Your task to perform on an android device: make emails show in primary in the gmail app Image 0: 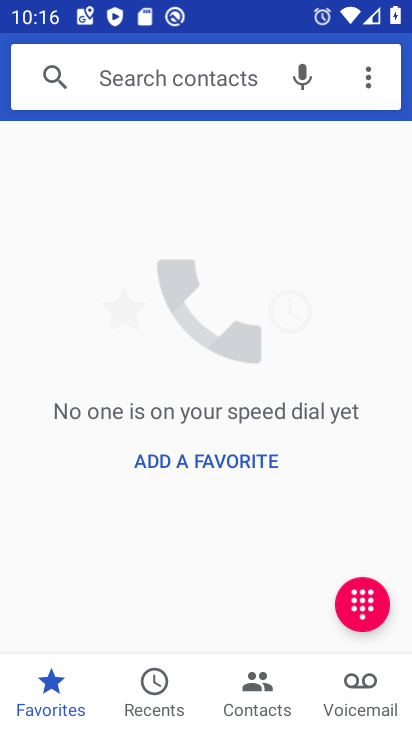
Step 0: press home button
Your task to perform on an android device: make emails show in primary in the gmail app Image 1: 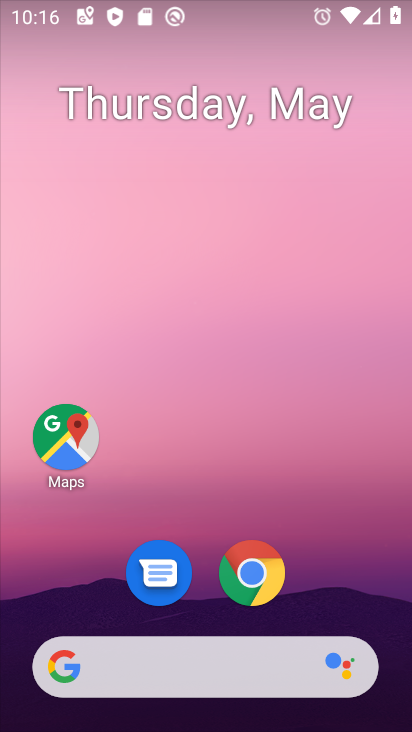
Step 1: drag from (198, 613) to (214, 187)
Your task to perform on an android device: make emails show in primary in the gmail app Image 2: 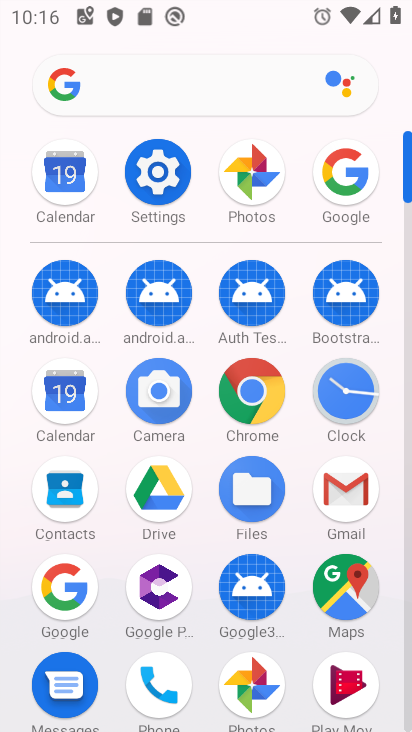
Step 2: click (326, 503)
Your task to perform on an android device: make emails show in primary in the gmail app Image 3: 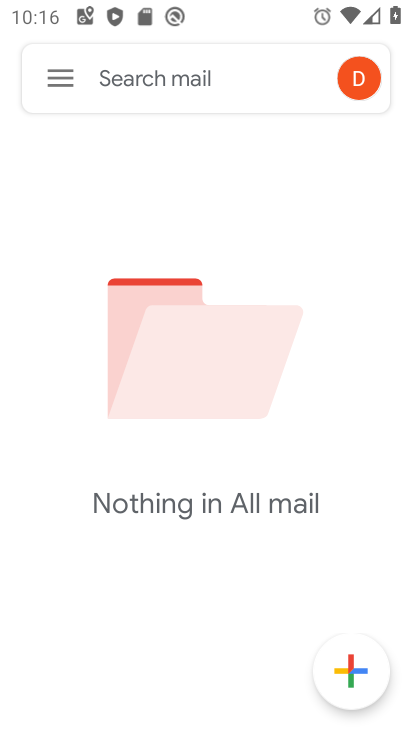
Step 3: click (53, 83)
Your task to perform on an android device: make emails show in primary in the gmail app Image 4: 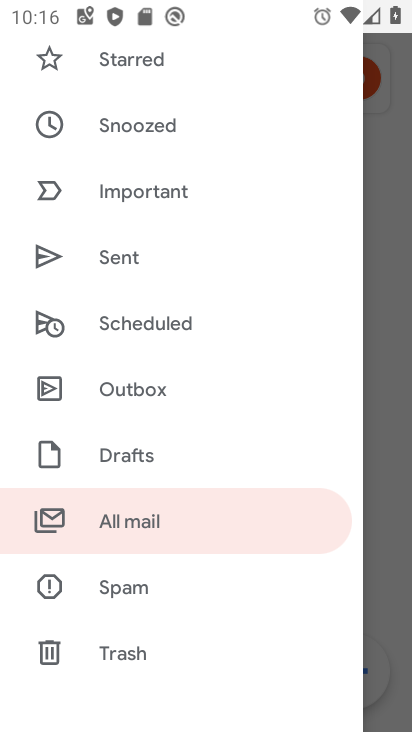
Step 4: drag from (188, 146) to (200, 512)
Your task to perform on an android device: make emails show in primary in the gmail app Image 5: 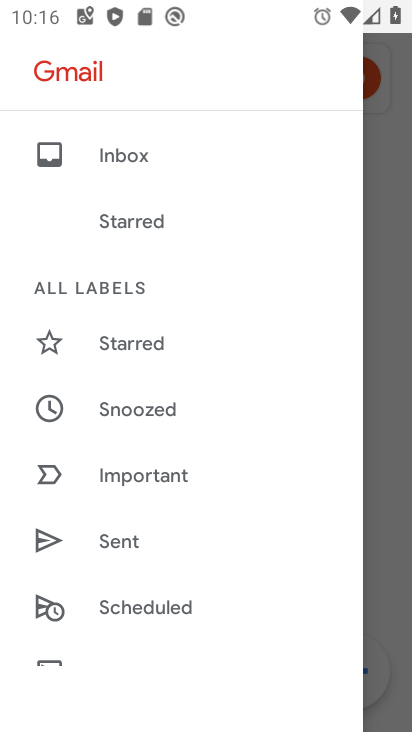
Step 5: drag from (232, 596) to (237, 192)
Your task to perform on an android device: make emails show in primary in the gmail app Image 6: 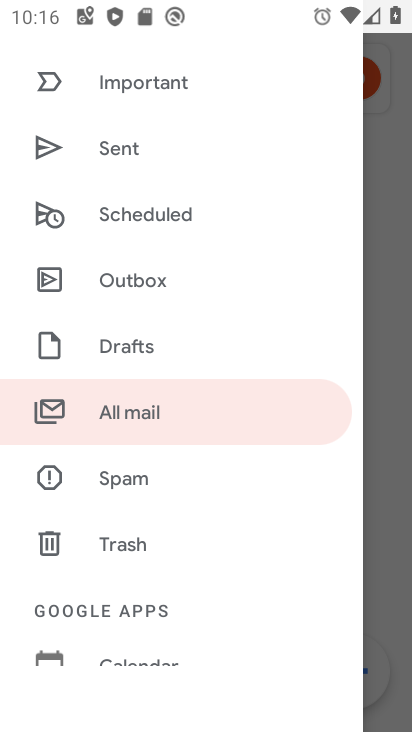
Step 6: drag from (157, 616) to (208, 259)
Your task to perform on an android device: make emails show in primary in the gmail app Image 7: 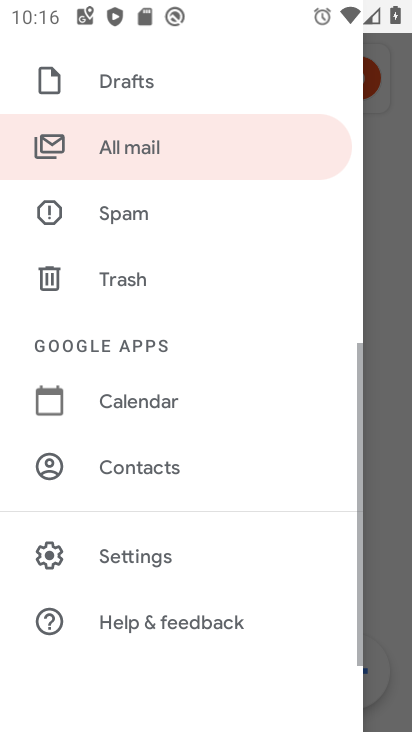
Step 7: click (139, 550)
Your task to perform on an android device: make emails show in primary in the gmail app Image 8: 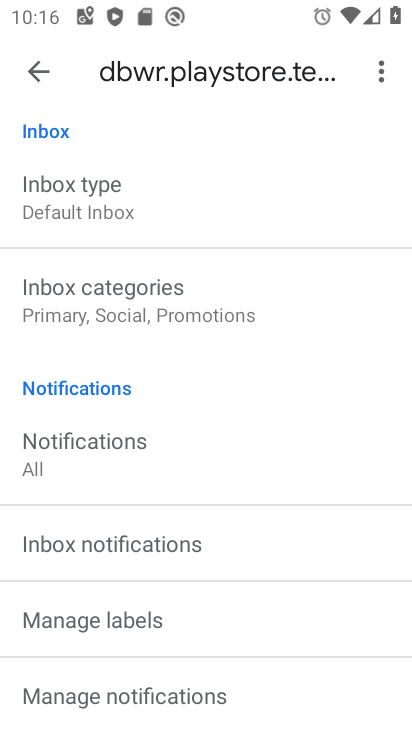
Step 8: click (117, 195)
Your task to perform on an android device: make emails show in primary in the gmail app Image 9: 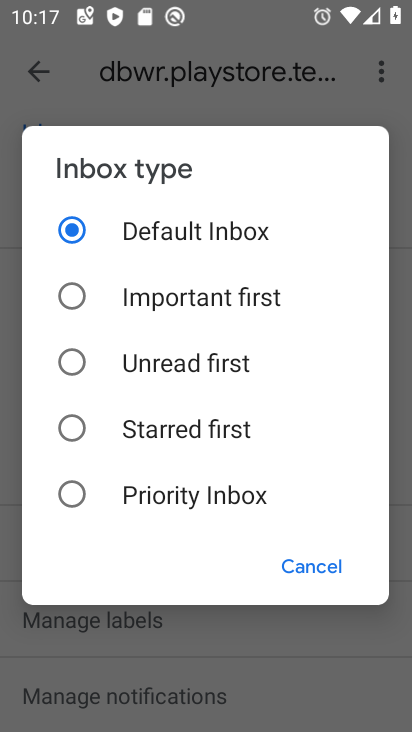
Step 9: click (285, 565)
Your task to perform on an android device: make emails show in primary in the gmail app Image 10: 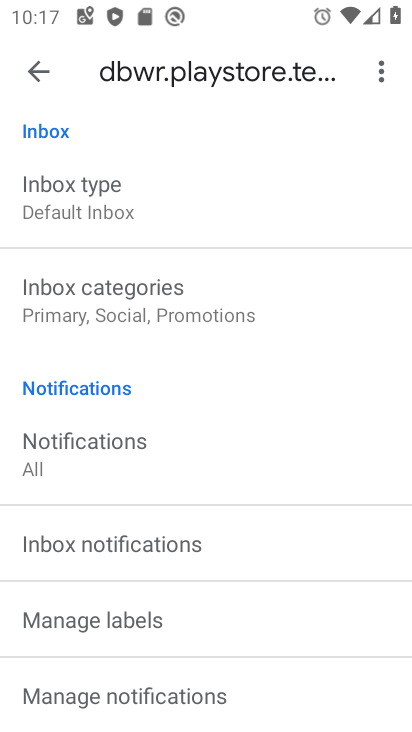
Step 10: task complete